Your task to perform on an android device: open sync settings in chrome Image 0: 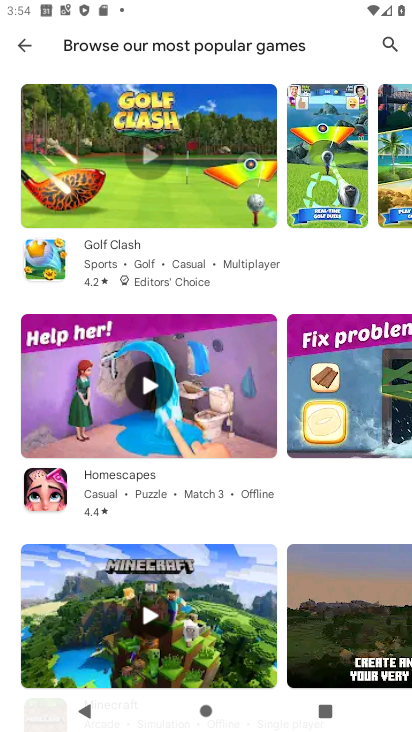
Step 0: press home button
Your task to perform on an android device: open sync settings in chrome Image 1: 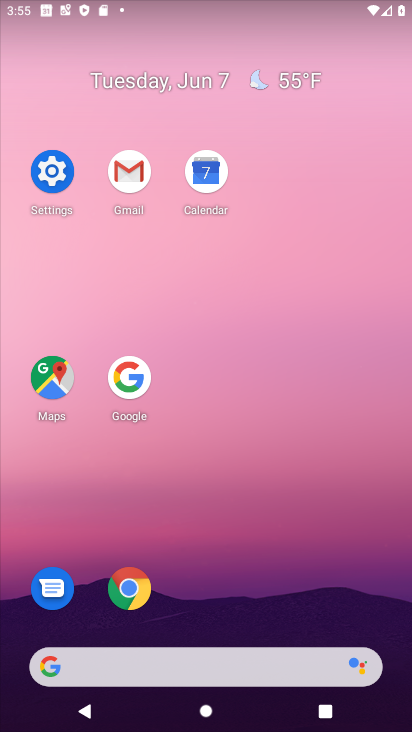
Step 1: click (123, 591)
Your task to perform on an android device: open sync settings in chrome Image 2: 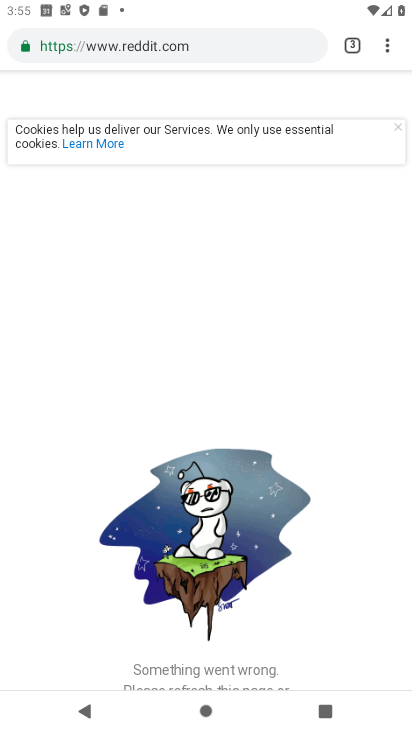
Step 2: click (400, 39)
Your task to perform on an android device: open sync settings in chrome Image 3: 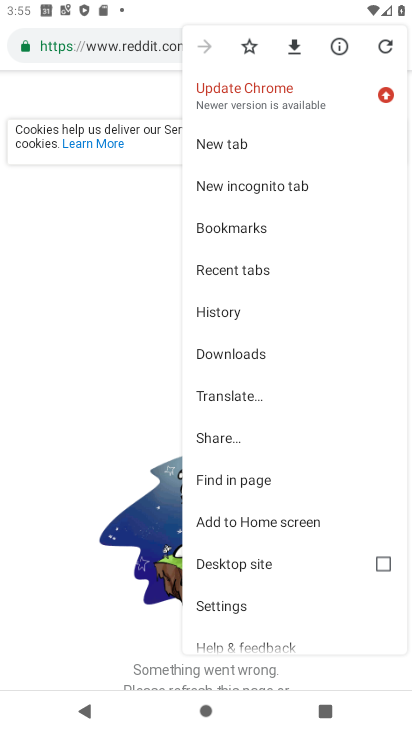
Step 3: drag from (252, 600) to (317, 225)
Your task to perform on an android device: open sync settings in chrome Image 4: 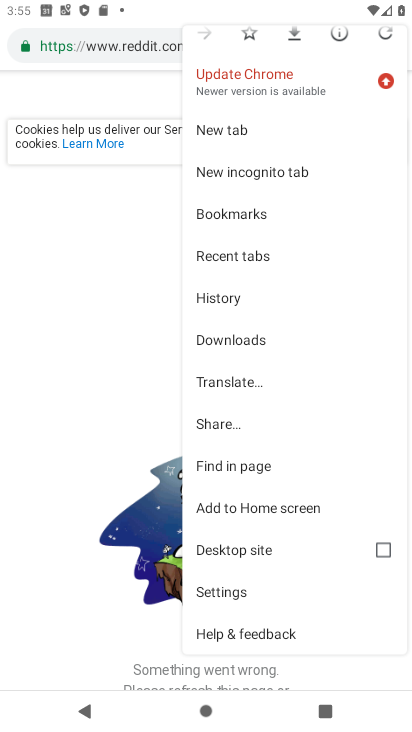
Step 4: click (234, 589)
Your task to perform on an android device: open sync settings in chrome Image 5: 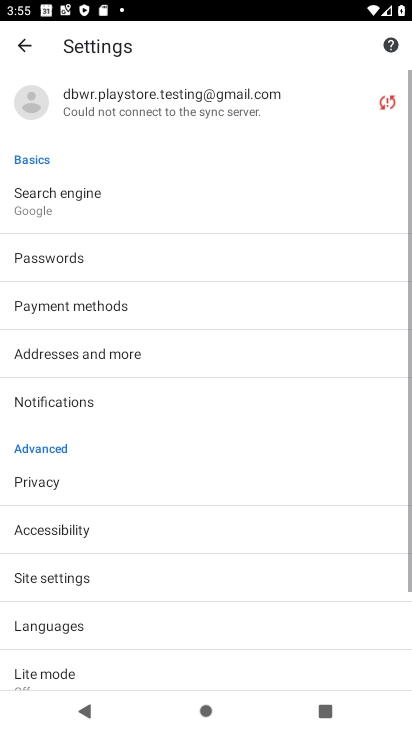
Step 5: drag from (234, 576) to (286, 180)
Your task to perform on an android device: open sync settings in chrome Image 6: 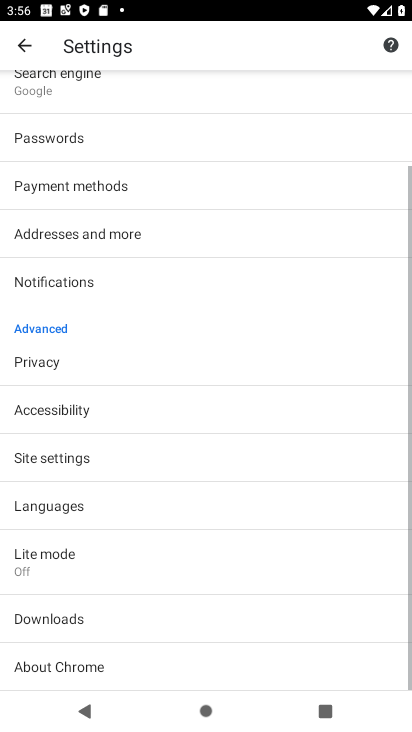
Step 6: click (174, 465)
Your task to perform on an android device: open sync settings in chrome Image 7: 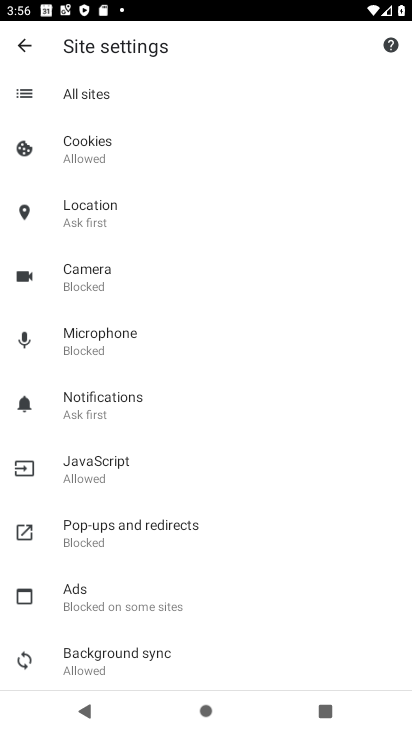
Step 7: click (157, 664)
Your task to perform on an android device: open sync settings in chrome Image 8: 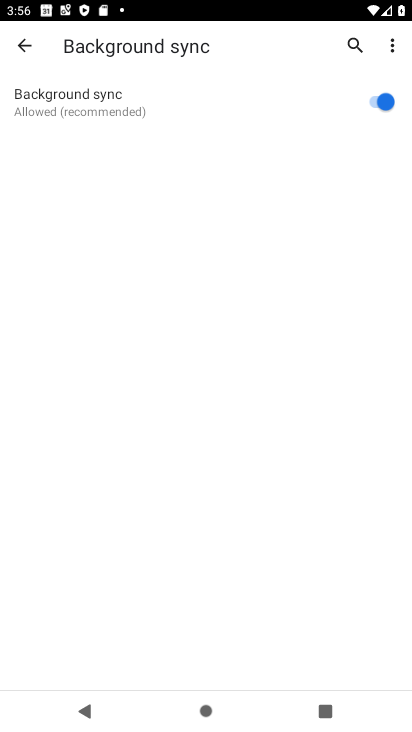
Step 8: task complete